Your task to perform on an android device: Open the calendar and show me this week's events Image 0: 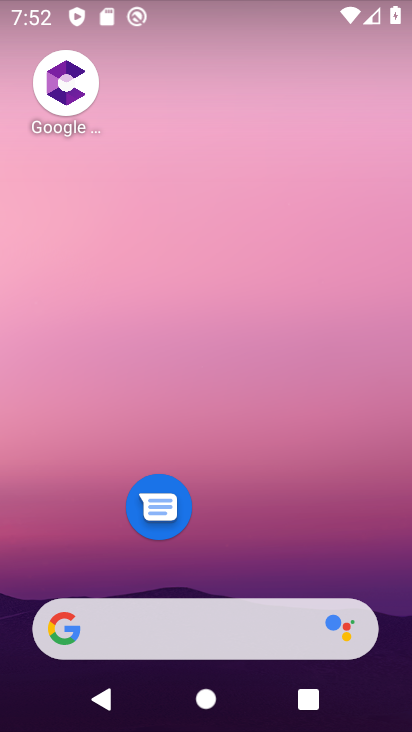
Step 0: drag from (254, 566) to (271, 166)
Your task to perform on an android device: Open the calendar and show me this week's events Image 1: 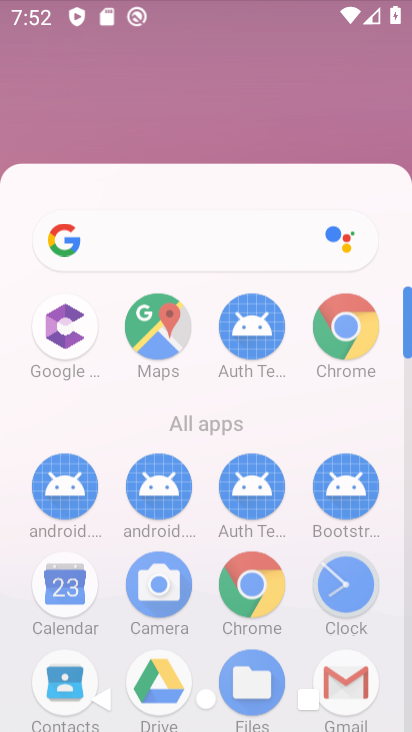
Step 1: drag from (244, 654) to (202, 12)
Your task to perform on an android device: Open the calendar and show me this week's events Image 2: 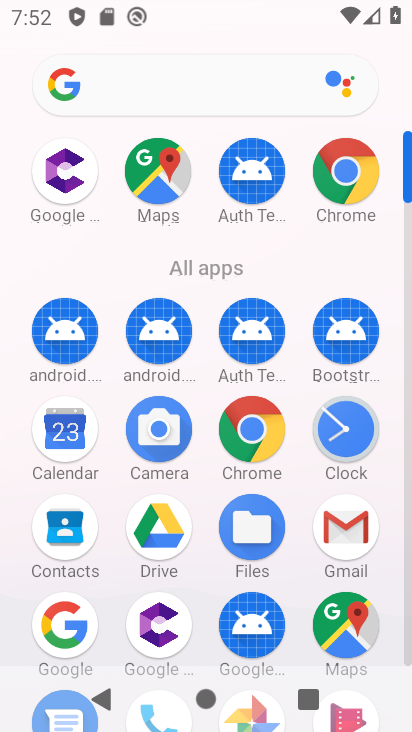
Step 2: drag from (291, 345) to (296, 47)
Your task to perform on an android device: Open the calendar and show me this week's events Image 3: 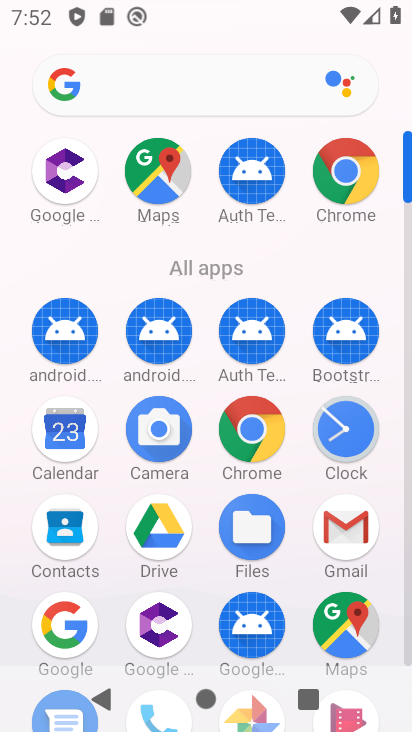
Step 3: click (302, 31)
Your task to perform on an android device: Open the calendar and show me this week's events Image 4: 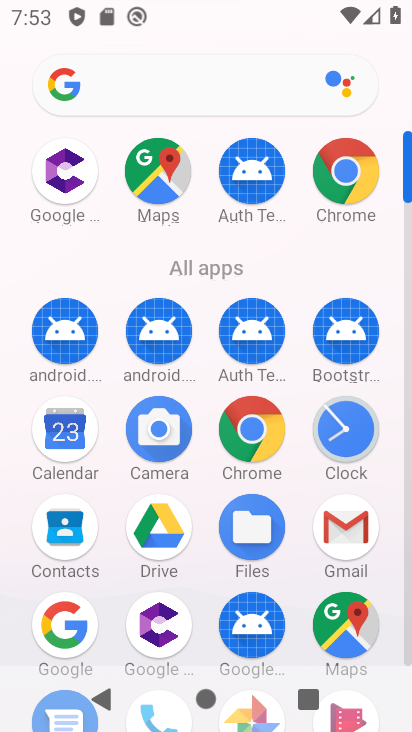
Step 4: click (60, 434)
Your task to perform on an android device: Open the calendar and show me this week's events Image 5: 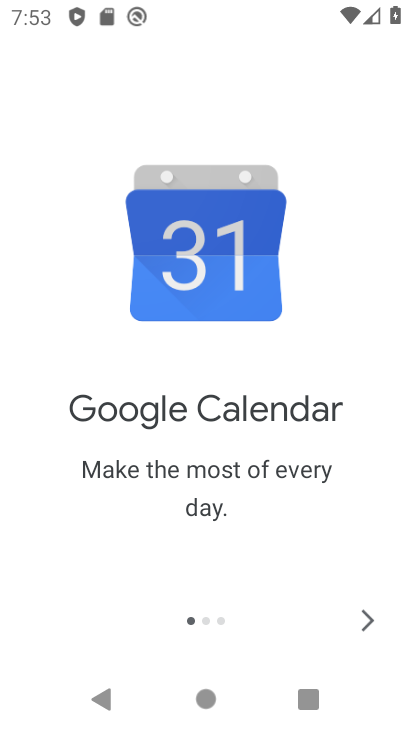
Step 5: click (63, 429)
Your task to perform on an android device: Open the calendar and show me this week's events Image 6: 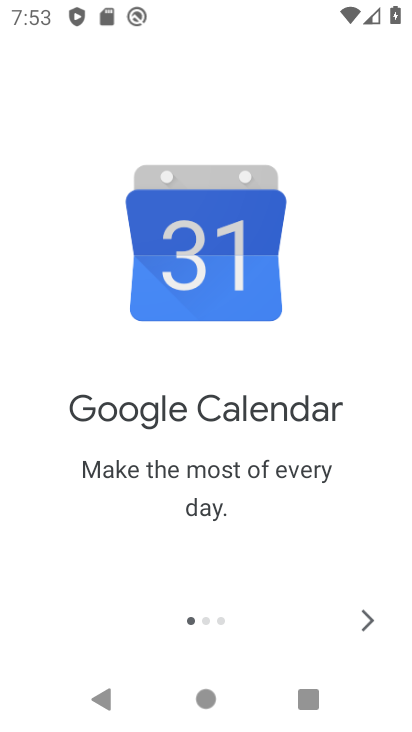
Step 6: click (43, 425)
Your task to perform on an android device: Open the calendar and show me this week's events Image 7: 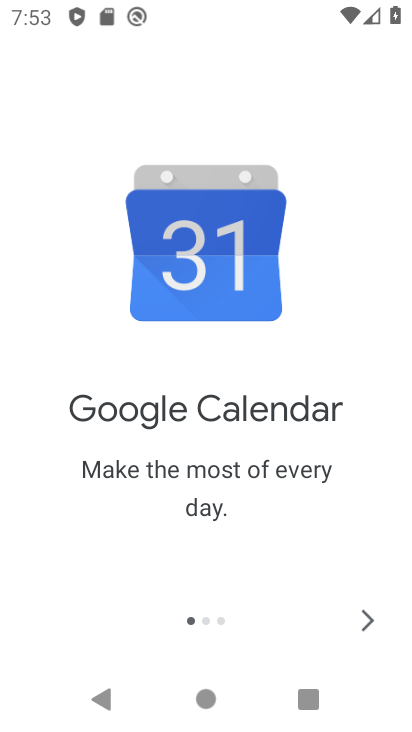
Step 7: click (47, 427)
Your task to perform on an android device: Open the calendar and show me this week's events Image 8: 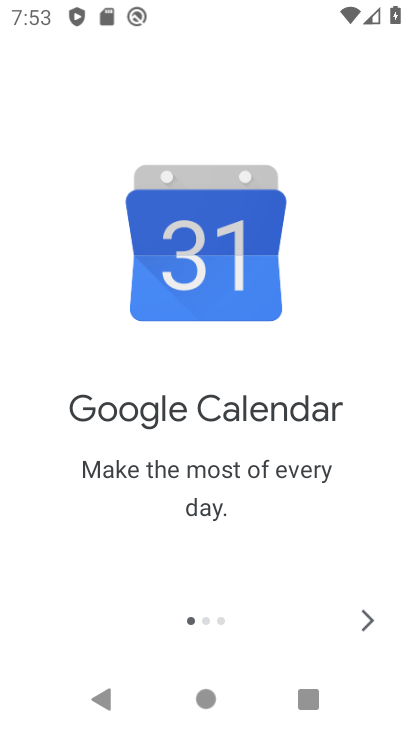
Step 8: click (70, 442)
Your task to perform on an android device: Open the calendar and show me this week's events Image 9: 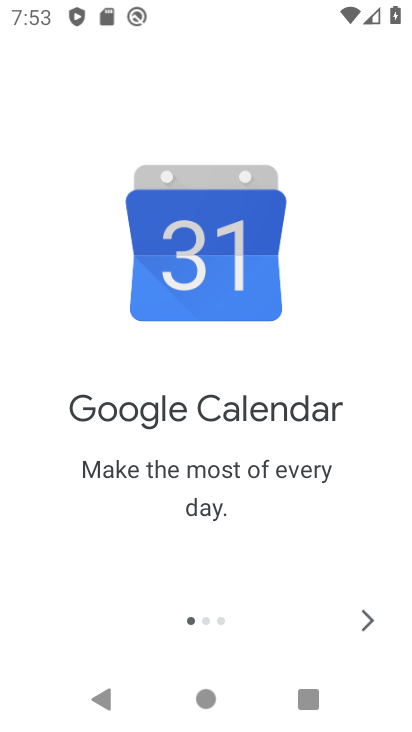
Step 9: click (363, 622)
Your task to perform on an android device: Open the calendar and show me this week's events Image 10: 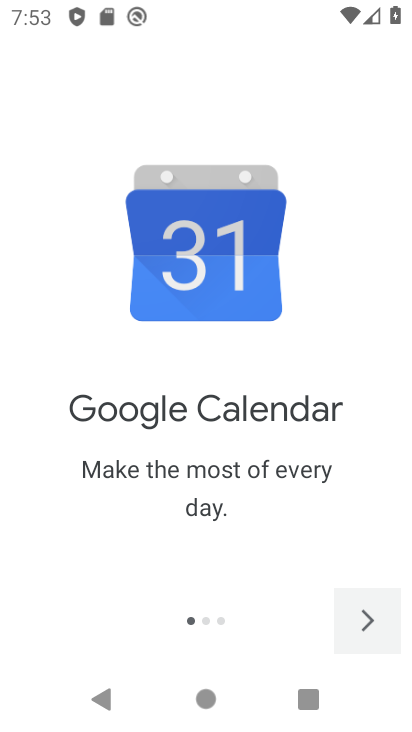
Step 10: click (366, 620)
Your task to perform on an android device: Open the calendar and show me this week's events Image 11: 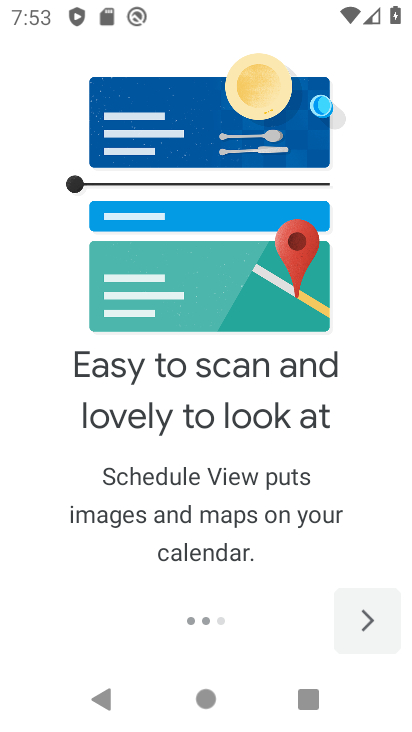
Step 11: click (366, 620)
Your task to perform on an android device: Open the calendar and show me this week's events Image 12: 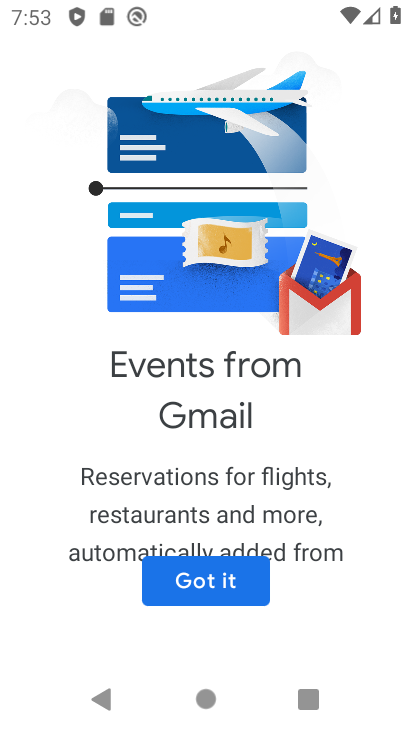
Step 12: drag from (366, 620) to (217, 587)
Your task to perform on an android device: Open the calendar and show me this week's events Image 13: 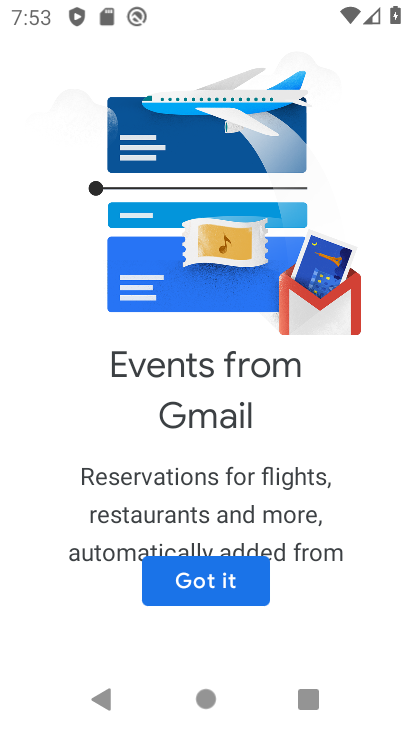
Step 13: click (222, 583)
Your task to perform on an android device: Open the calendar and show me this week's events Image 14: 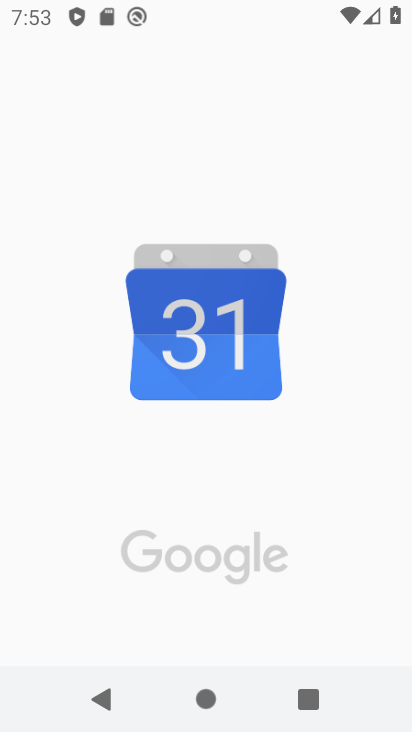
Step 14: click (225, 583)
Your task to perform on an android device: Open the calendar and show me this week's events Image 15: 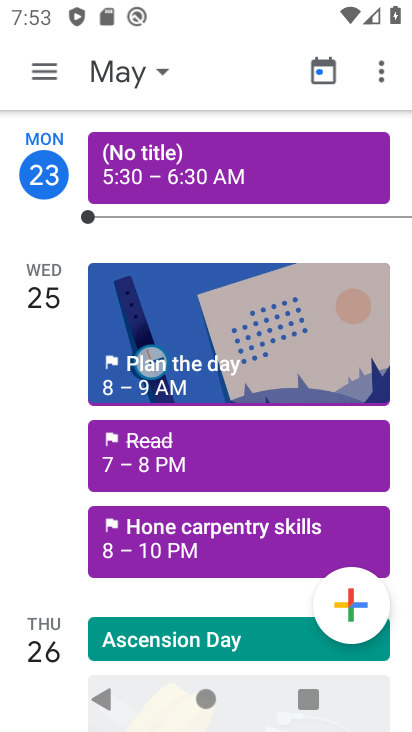
Step 15: task complete